Your task to perform on an android device: Open Yahoo.com Image 0: 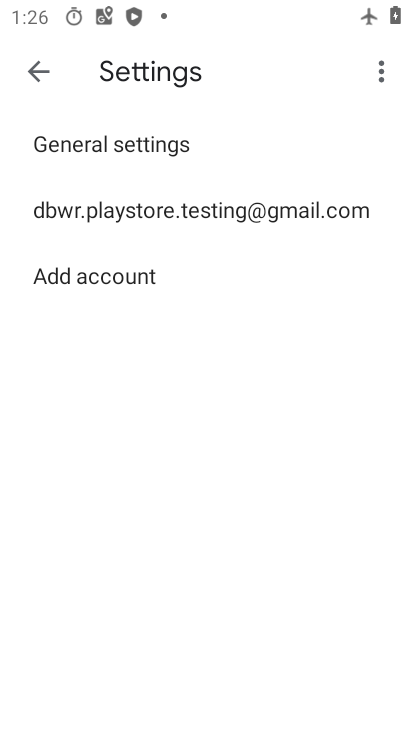
Step 0: press home button
Your task to perform on an android device: Open Yahoo.com Image 1: 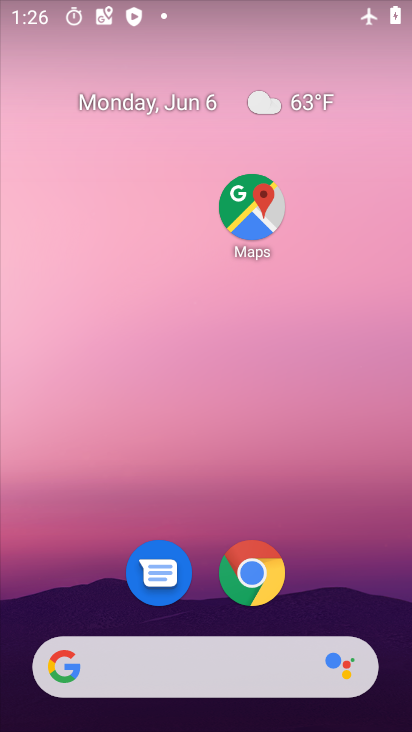
Step 1: drag from (218, 484) to (184, 1)
Your task to perform on an android device: Open Yahoo.com Image 2: 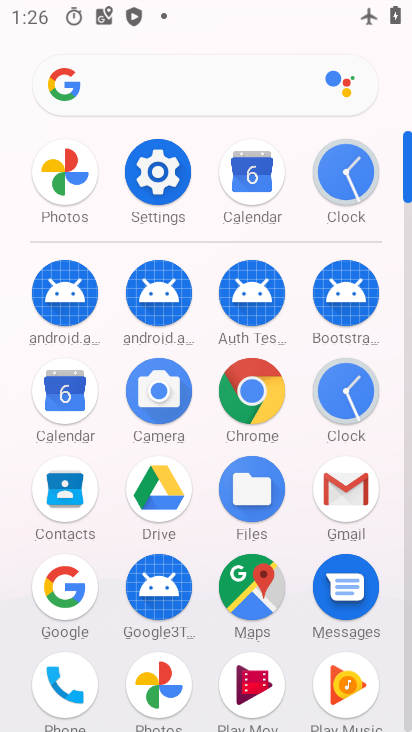
Step 2: click (244, 399)
Your task to perform on an android device: Open Yahoo.com Image 3: 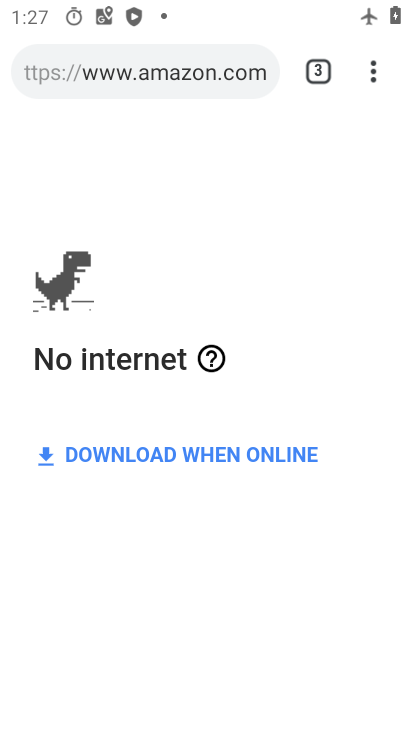
Step 3: click (315, 80)
Your task to perform on an android device: Open Yahoo.com Image 4: 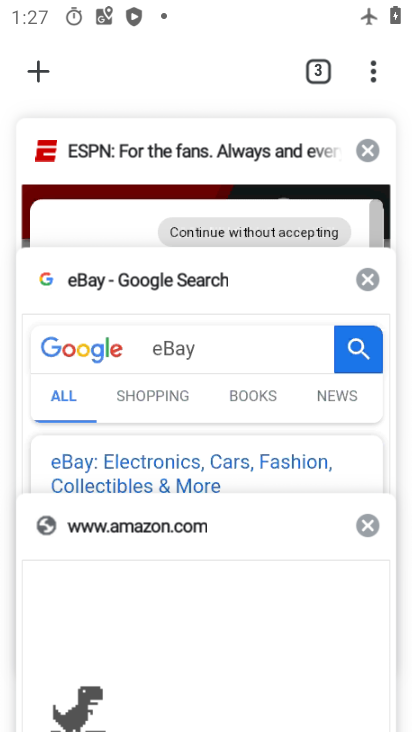
Step 4: click (32, 85)
Your task to perform on an android device: Open Yahoo.com Image 5: 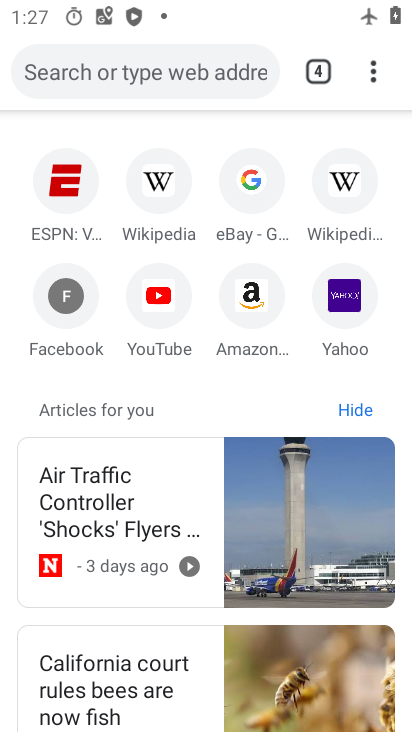
Step 5: click (339, 316)
Your task to perform on an android device: Open Yahoo.com Image 6: 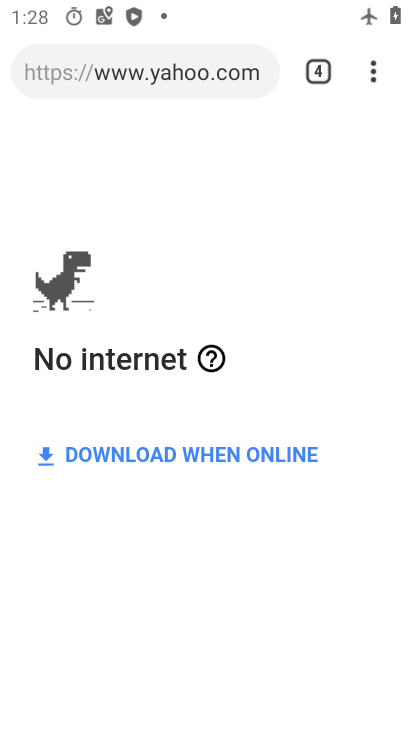
Step 6: task complete